Your task to perform on an android device: Open internet settings Image 0: 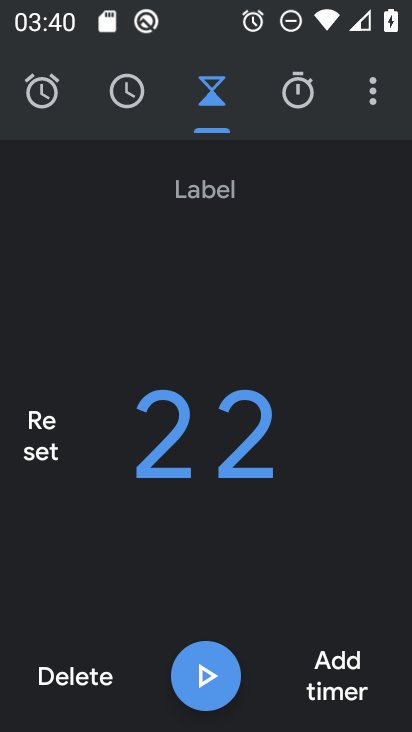
Step 0: press home button
Your task to perform on an android device: Open internet settings Image 1: 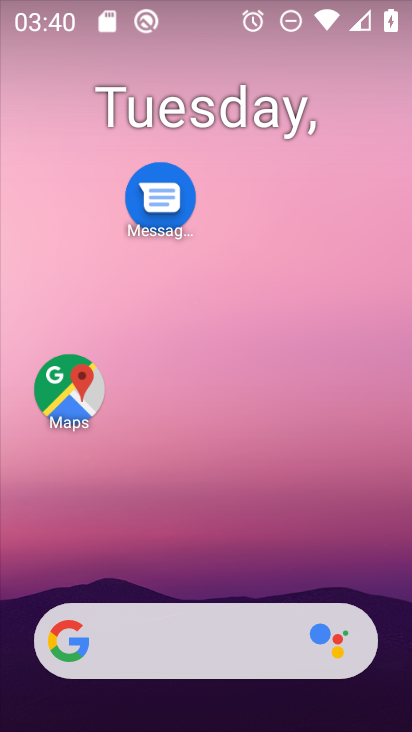
Step 1: drag from (198, 567) to (247, 166)
Your task to perform on an android device: Open internet settings Image 2: 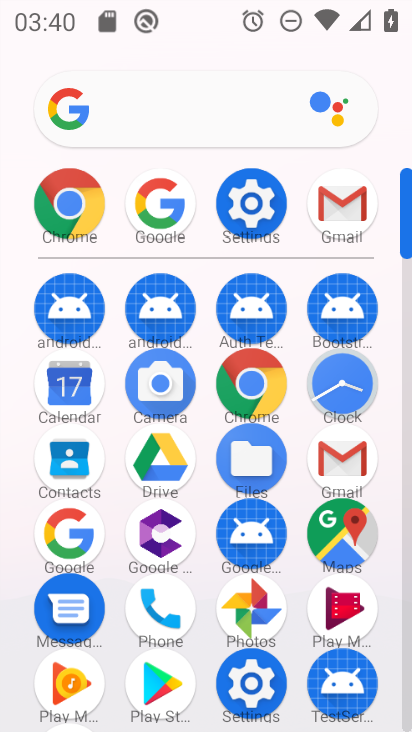
Step 2: click (255, 181)
Your task to perform on an android device: Open internet settings Image 3: 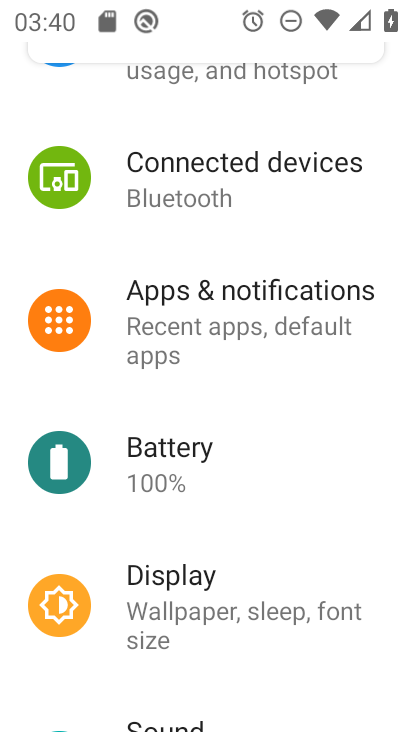
Step 3: drag from (240, 252) to (267, 577)
Your task to perform on an android device: Open internet settings Image 4: 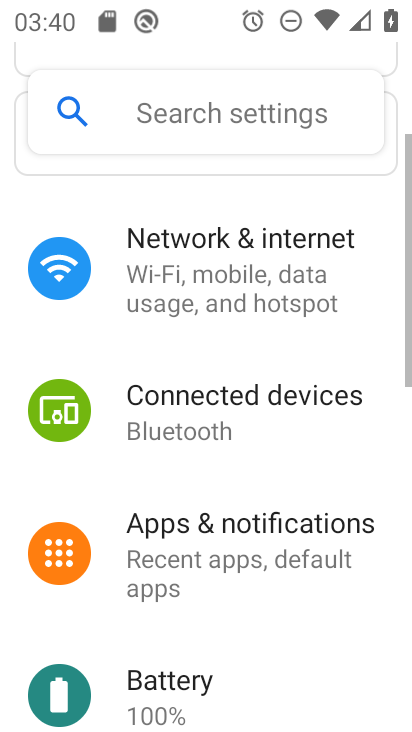
Step 4: drag from (289, 286) to (311, 563)
Your task to perform on an android device: Open internet settings Image 5: 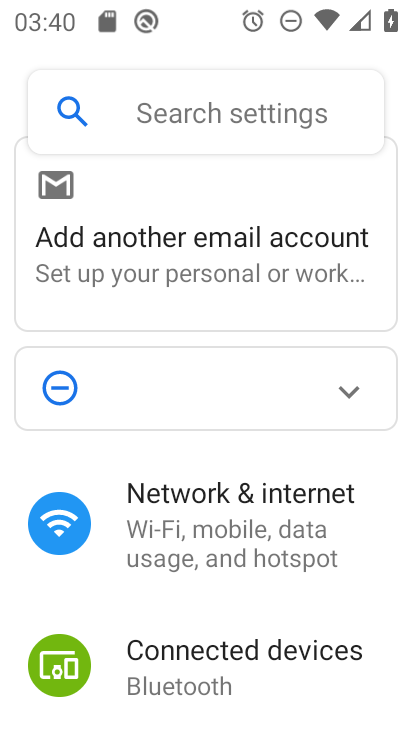
Step 5: click (222, 510)
Your task to perform on an android device: Open internet settings Image 6: 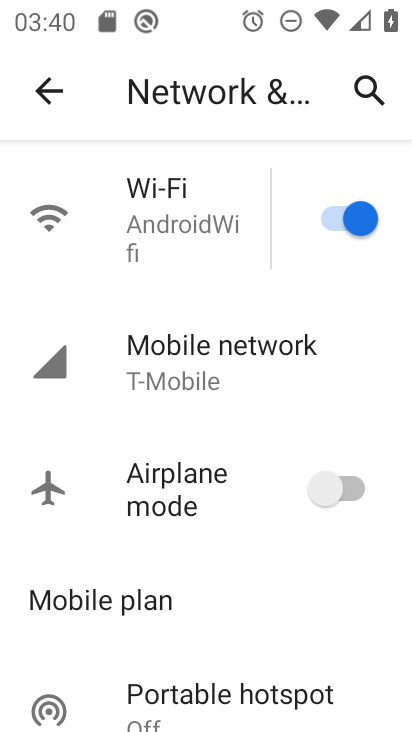
Step 6: click (180, 365)
Your task to perform on an android device: Open internet settings Image 7: 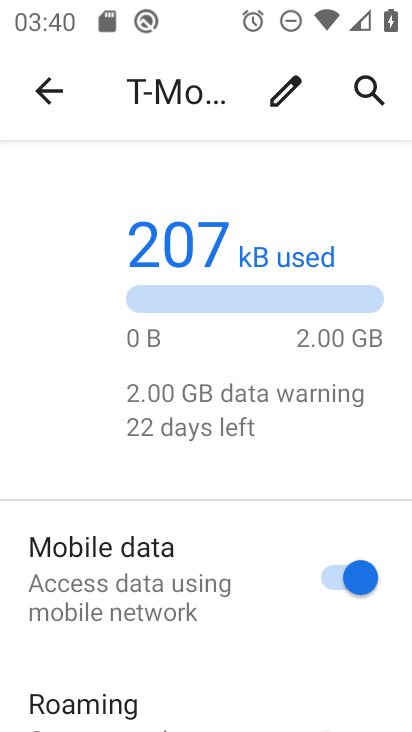
Step 7: task complete